Your task to perform on an android device: Go to sound settings Image 0: 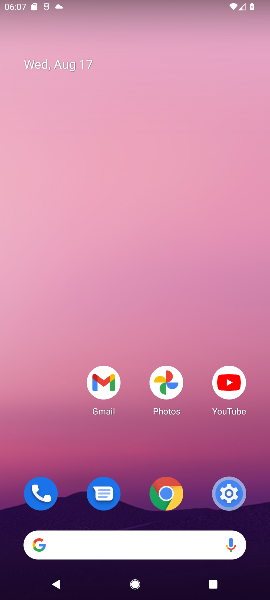
Step 0: press home button
Your task to perform on an android device: Go to sound settings Image 1: 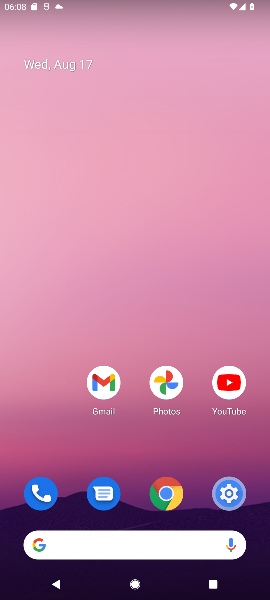
Step 1: click (243, 497)
Your task to perform on an android device: Go to sound settings Image 2: 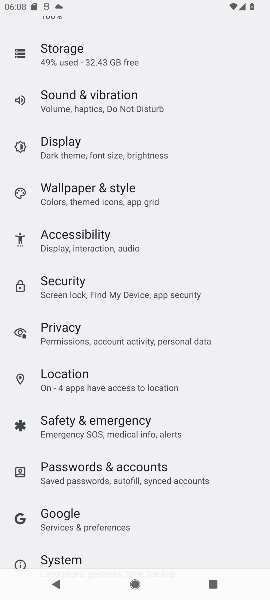
Step 2: drag from (207, 527) to (139, 206)
Your task to perform on an android device: Go to sound settings Image 3: 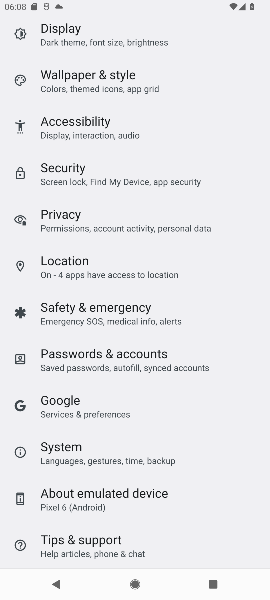
Step 3: drag from (175, 123) to (118, 583)
Your task to perform on an android device: Go to sound settings Image 4: 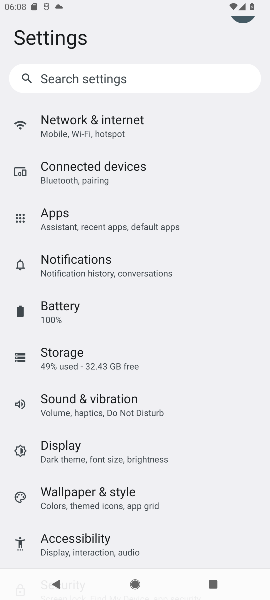
Step 4: click (90, 411)
Your task to perform on an android device: Go to sound settings Image 5: 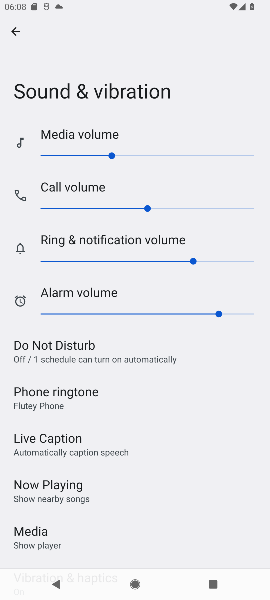
Step 5: task complete